Your task to perform on an android device: Open battery settings Image 0: 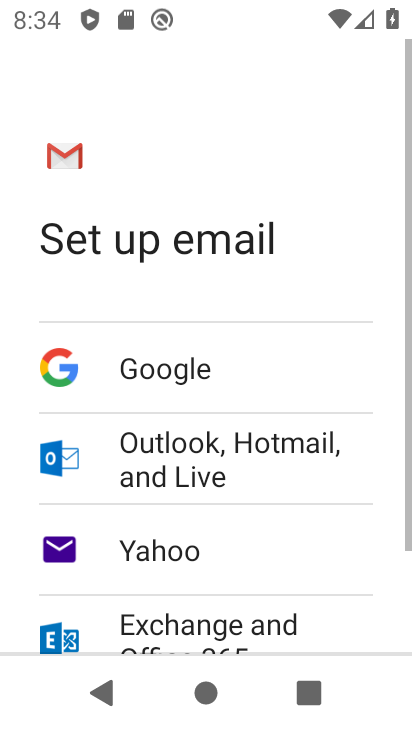
Step 0: press home button
Your task to perform on an android device: Open battery settings Image 1: 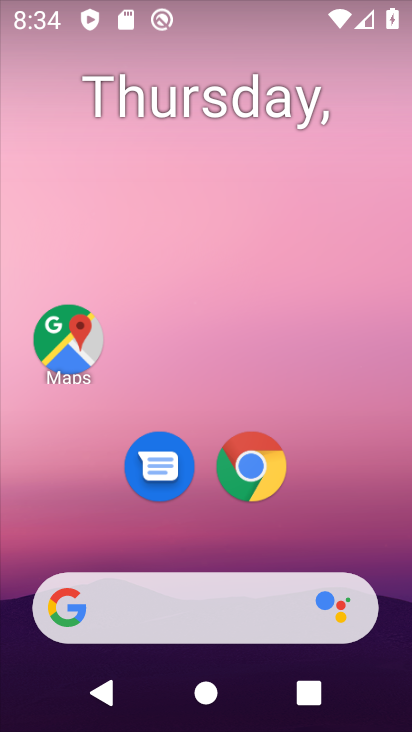
Step 1: drag from (161, 612) to (338, 115)
Your task to perform on an android device: Open battery settings Image 2: 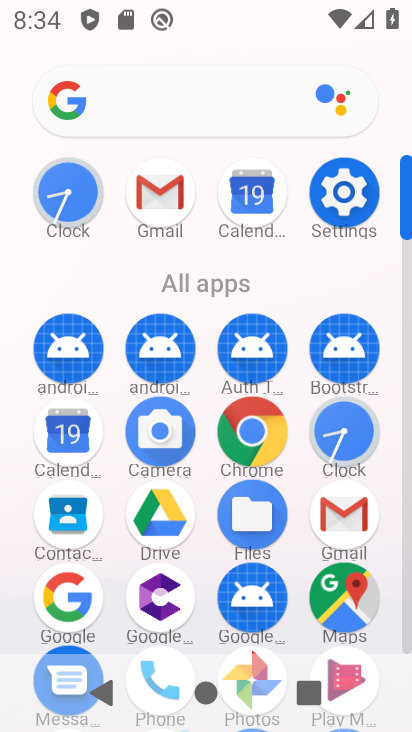
Step 2: click (340, 205)
Your task to perform on an android device: Open battery settings Image 3: 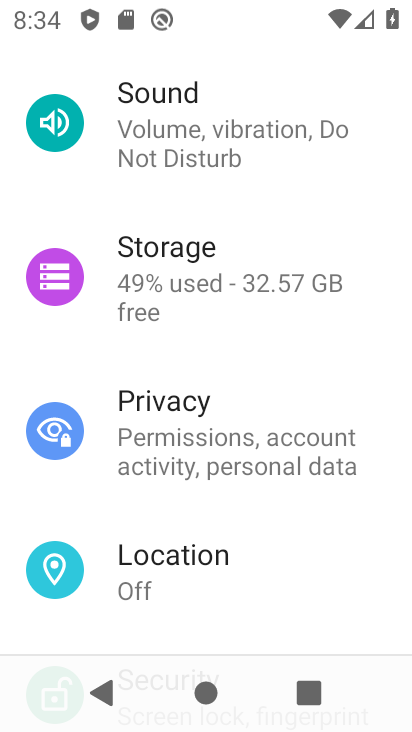
Step 3: drag from (299, 195) to (216, 548)
Your task to perform on an android device: Open battery settings Image 4: 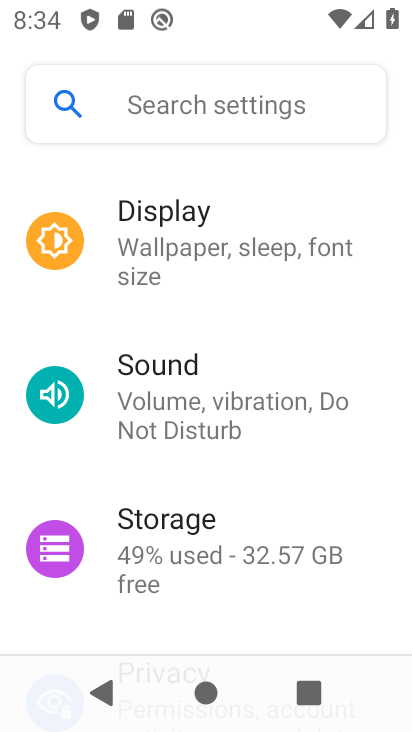
Step 4: drag from (284, 203) to (250, 512)
Your task to perform on an android device: Open battery settings Image 5: 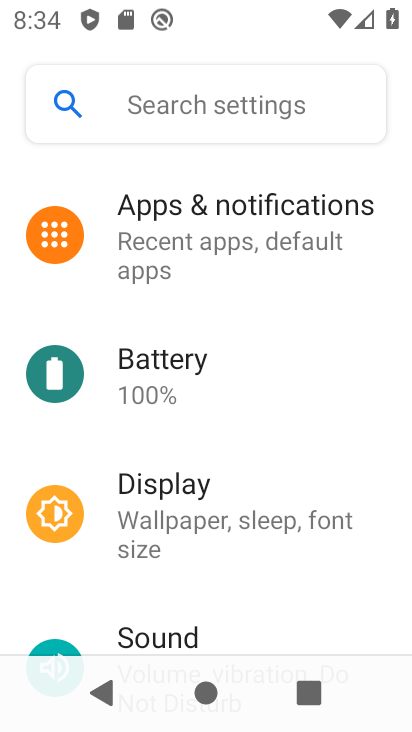
Step 5: click (172, 385)
Your task to perform on an android device: Open battery settings Image 6: 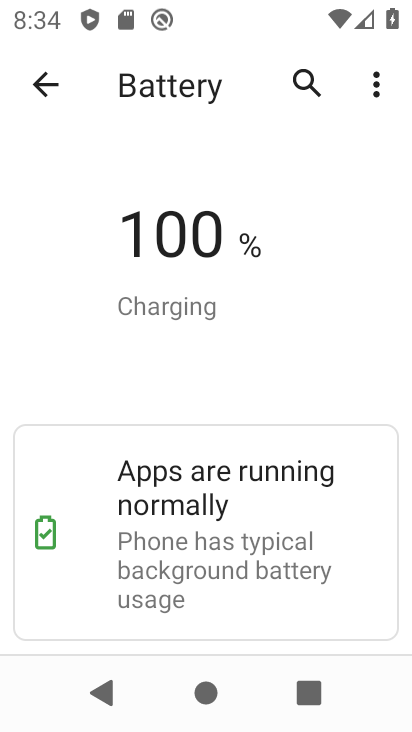
Step 6: task complete